Your task to perform on an android device: turn on notifications settings in the gmail app Image 0: 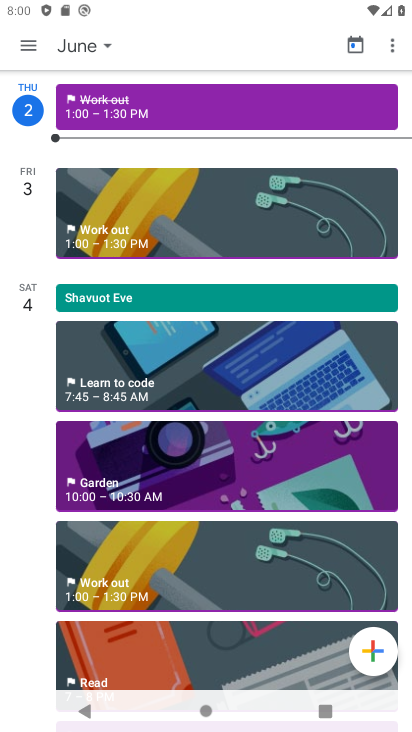
Step 0: press home button
Your task to perform on an android device: turn on notifications settings in the gmail app Image 1: 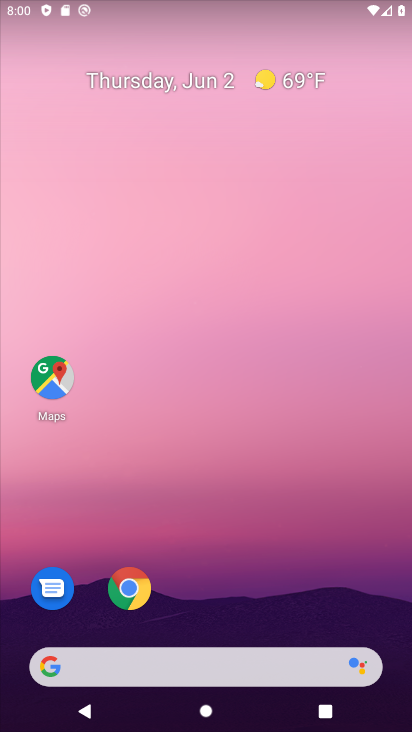
Step 1: drag from (240, 730) to (183, 24)
Your task to perform on an android device: turn on notifications settings in the gmail app Image 2: 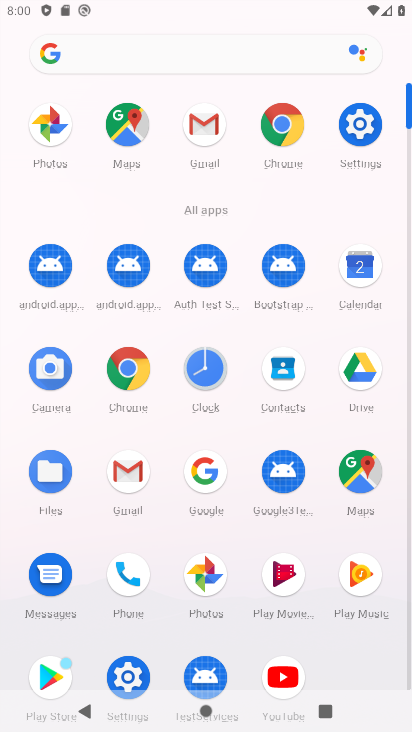
Step 2: click (133, 471)
Your task to perform on an android device: turn on notifications settings in the gmail app Image 3: 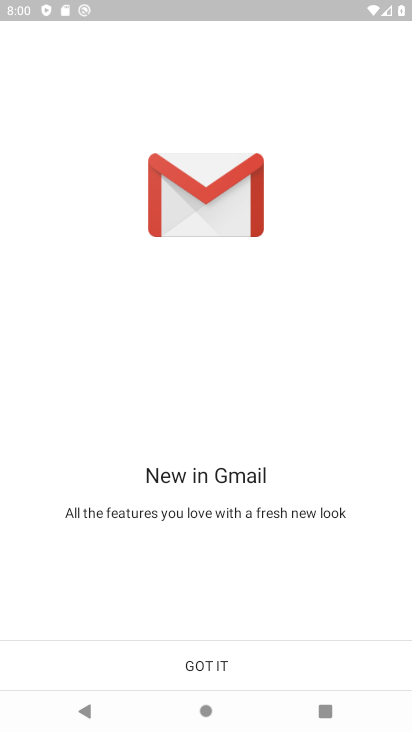
Step 3: click (212, 665)
Your task to perform on an android device: turn on notifications settings in the gmail app Image 4: 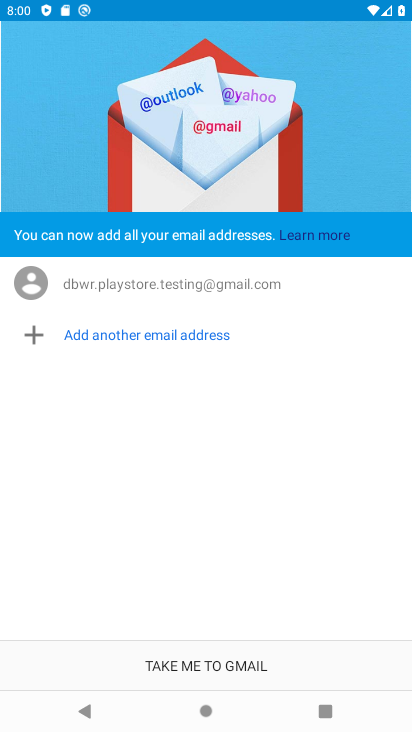
Step 4: click (212, 665)
Your task to perform on an android device: turn on notifications settings in the gmail app Image 5: 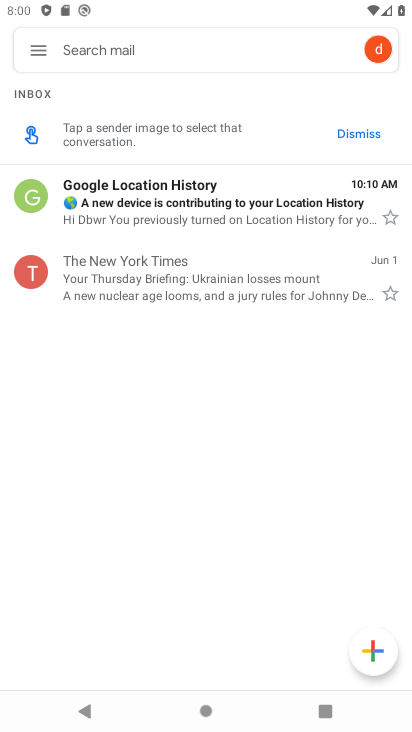
Step 5: click (35, 52)
Your task to perform on an android device: turn on notifications settings in the gmail app Image 6: 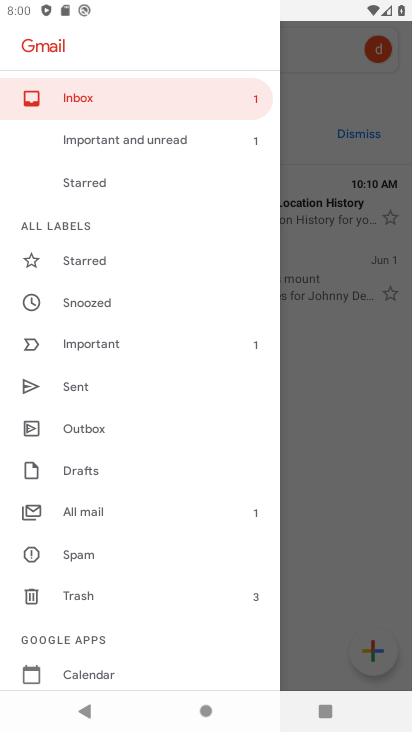
Step 6: drag from (121, 665) to (117, 213)
Your task to perform on an android device: turn on notifications settings in the gmail app Image 7: 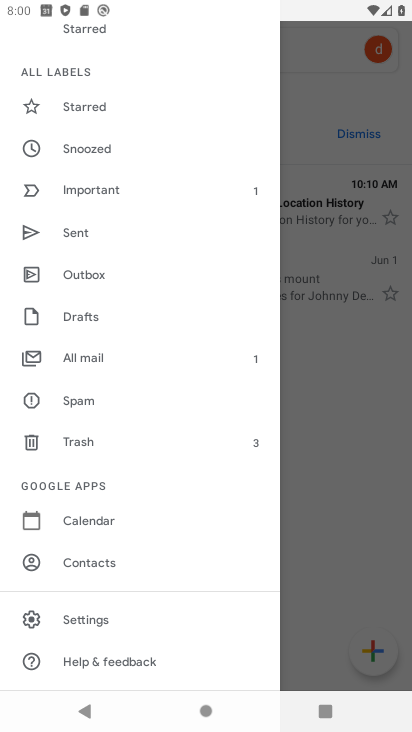
Step 7: click (69, 618)
Your task to perform on an android device: turn on notifications settings in the gmail app Image 8: 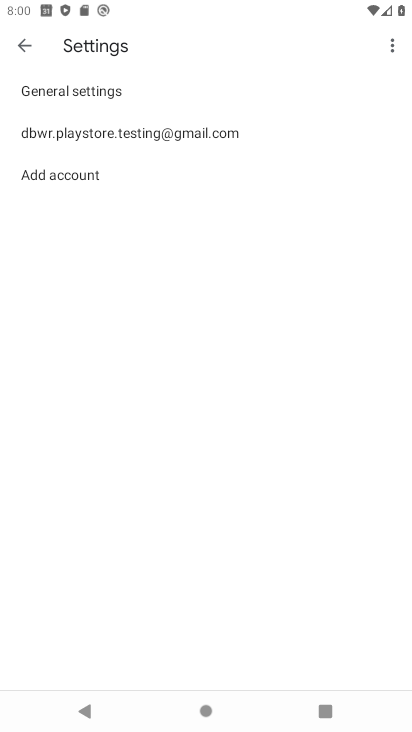
Step 8: click (124, 135)
Your task to perform on an android device: turn on notifications settings in the gmail app Image 9: 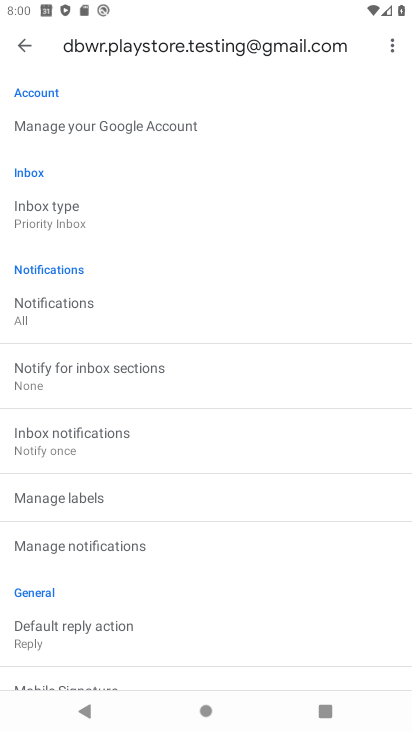
Step 9: task complete